Your task to perform on an android device: Go to Google maps Image 0: 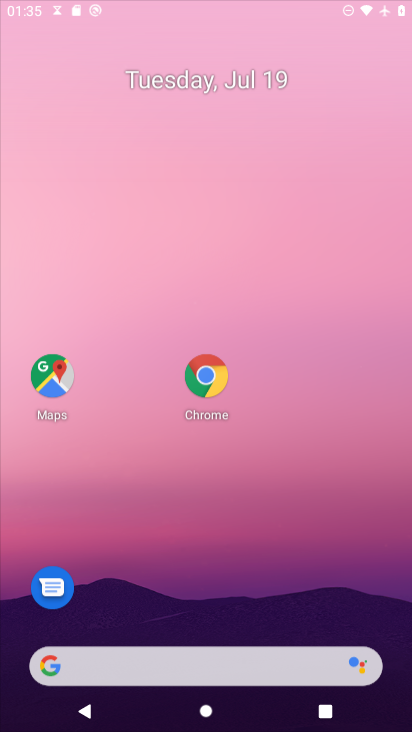
Step 0: press home button
Your task to perform on an android device: Go to Google maps Image 1: 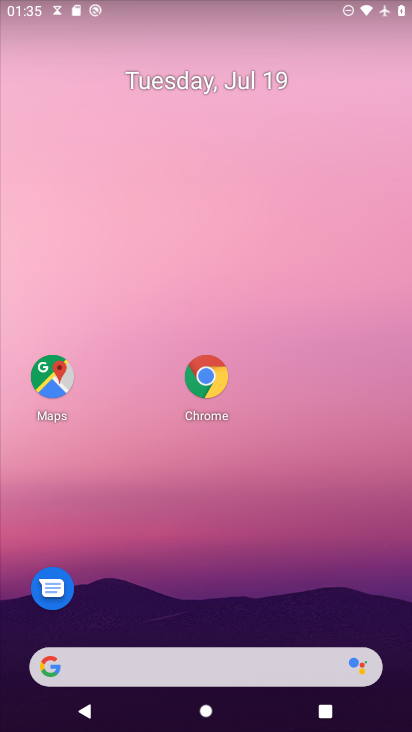
Step 1: drag from (0, 0) to (261, 7)
Your task to perform on an android device: Go to Google maps Image 2: 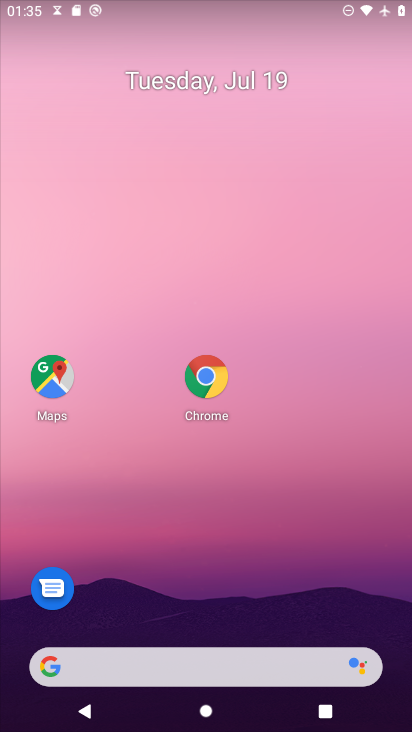
Step 2: drag from (216, 616) to (220, 23)
Your task to perform on an android device: Go to Google maps Image 3: 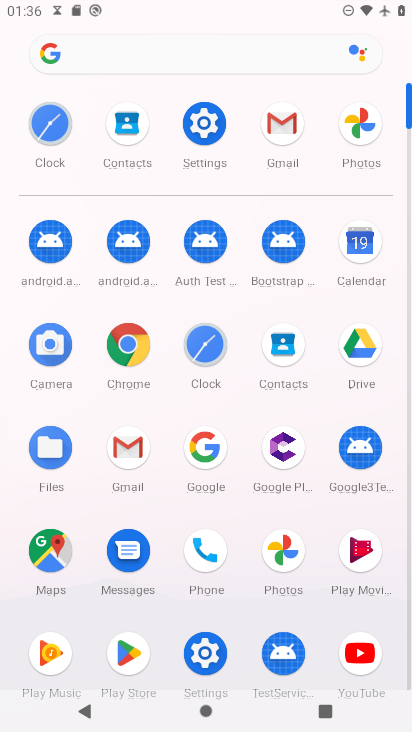
Step 3: click (41, 551)
Your task to perform on an android device: Go to Google maps Image 4: 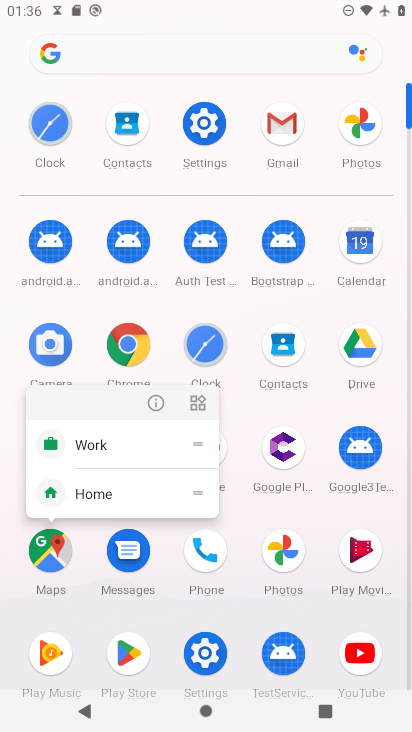
Step 4: click (283, 516)
Your task to perform on an android device: Go to Google maps Image 5: 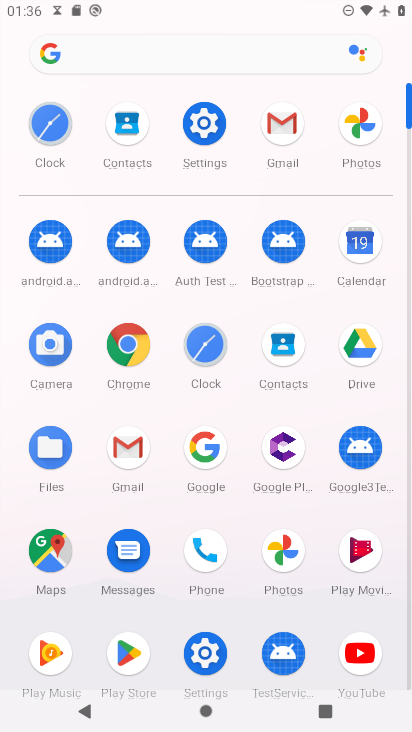
Step 5: click (41, 551)
Your task to perform on an android device: Go to Google maps Image 6: 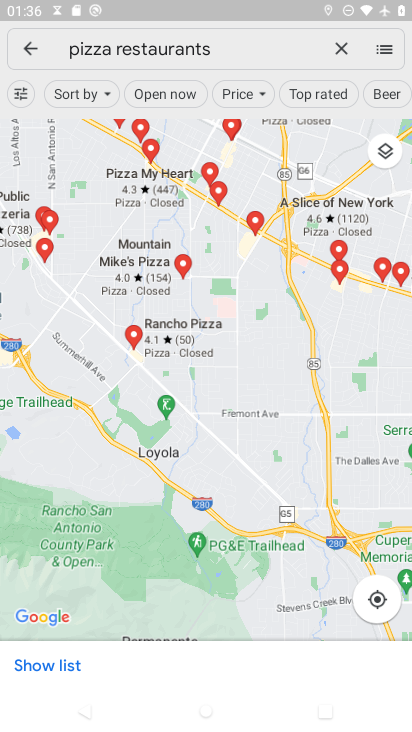
Step 6: click (340, 56)
Your task to perform on an android device: Go to Google maps Image 7: 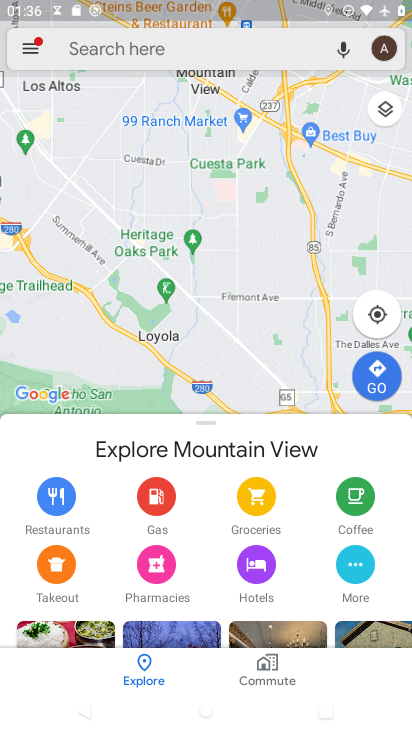
Step 7: task complete